Your task to perform on an android device: see tabs open on other devices in the chrome app Image 0: 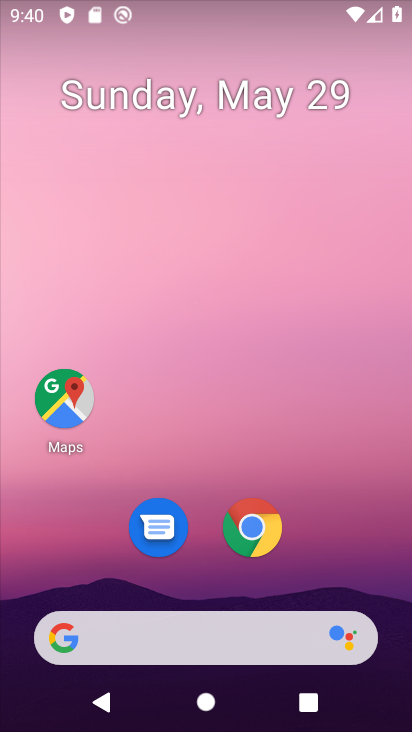
Step 0: click (259, 528)
Your task to perform on an android device: see tabs open on other devices in the chrome app Image 1: 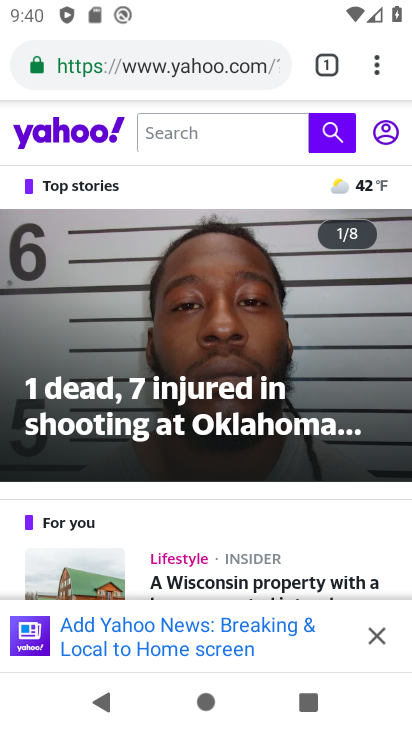
Step 1: task complete